Your task to perform on an android device: see creations saved in the google photos Image 0: 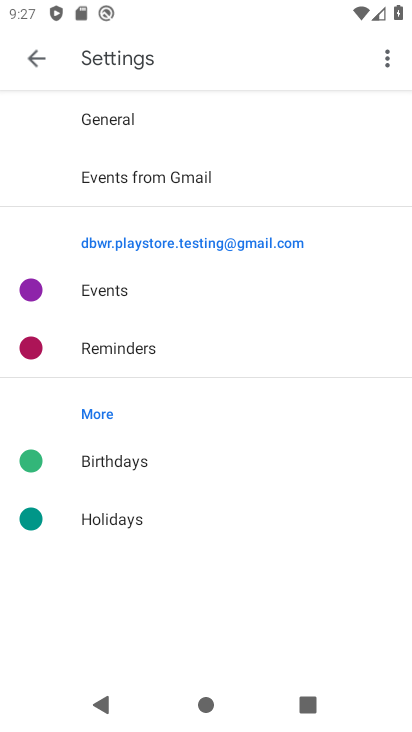
Step 0: press back button
Your task to perform on an android device: see creations saved in the google photos Image 1: 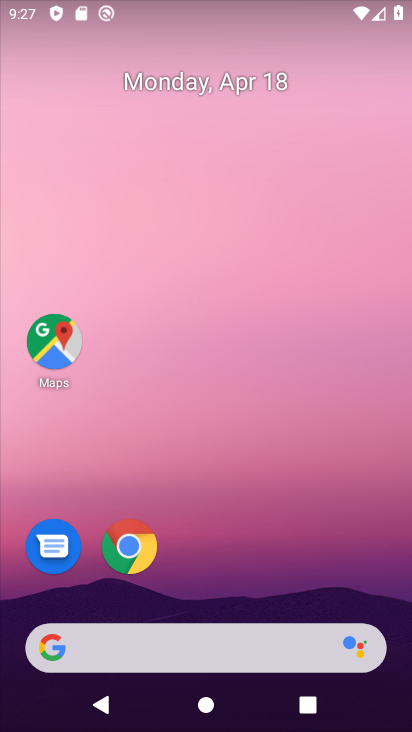
Step 1: drag from (211, 522) to (269, 222)
Your task to perform on an android device: see creations saved in the google photos Image 2: 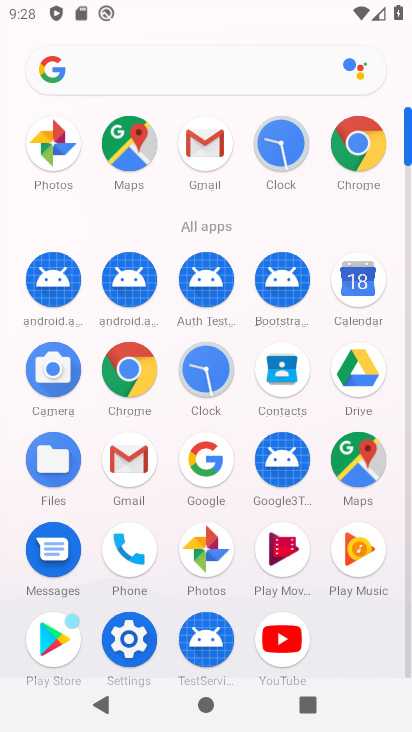
Step 2: click (217, 550)
Your task to perform on an android device: see creations saved in the google photos Image 3: 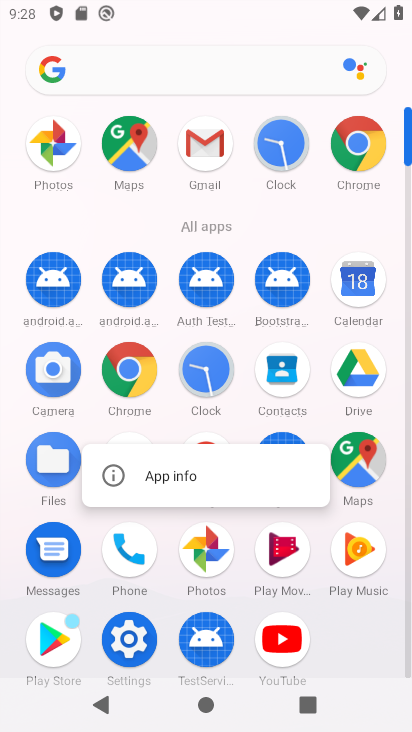
Step 3: click (209, 551)
Your task to perform on an android device: see creations saved in the google photos Image 4: 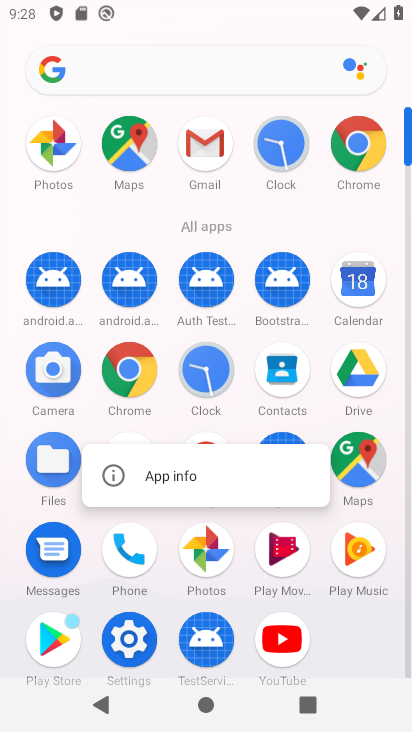
Step 4: click (203, 567)
Your task to perform on an android device: see creations saved in the google photos Image 5: 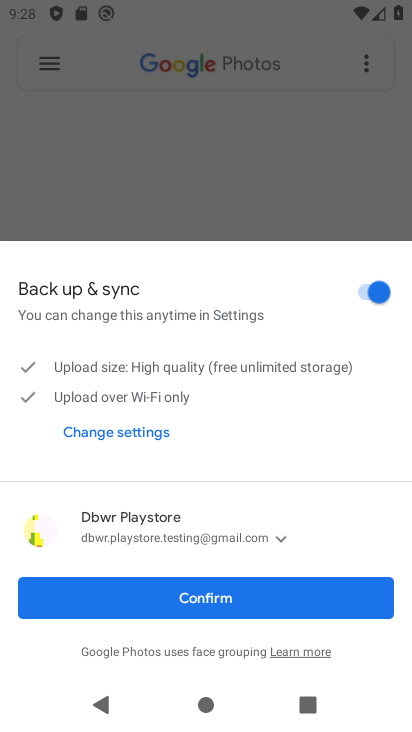
Step 5: click (211, 591)
Your task to perform on an android device: see creations saved in the google photos Image 6: 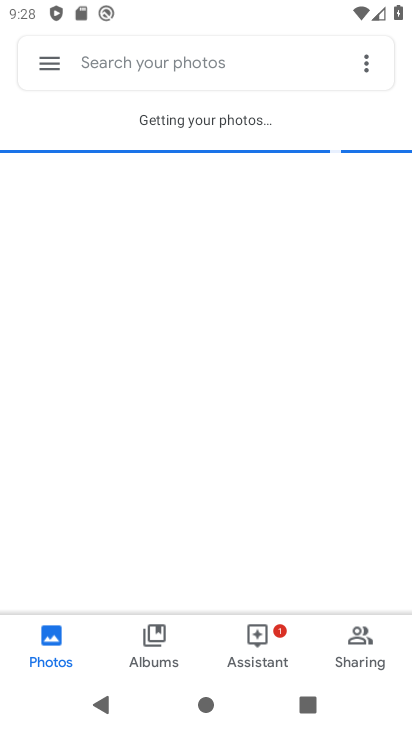
Step 6: click (132, 60)
Your task to perform on an android device: see creations saved in the google photos Image 7: 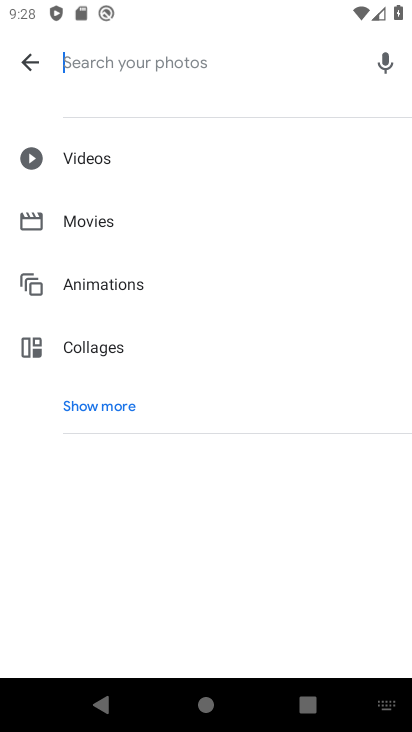
Step 7: type "creations"
Your task to perform on an android device: see creations saved in the google photos Image 8: 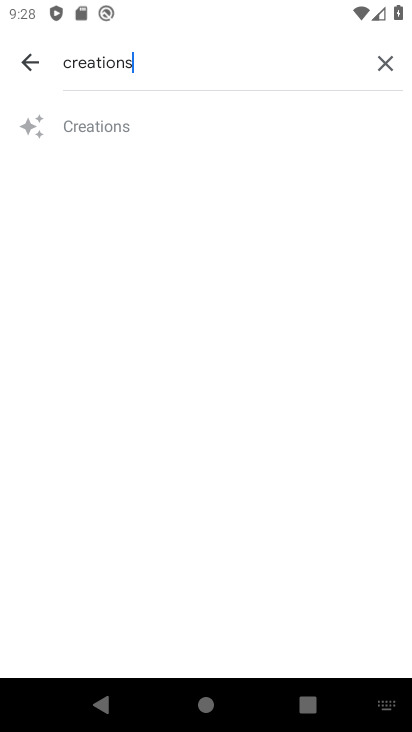
Step 8: click (172, 123)
Your task to perform on an android device: see creations saved in the google photos Image 9: 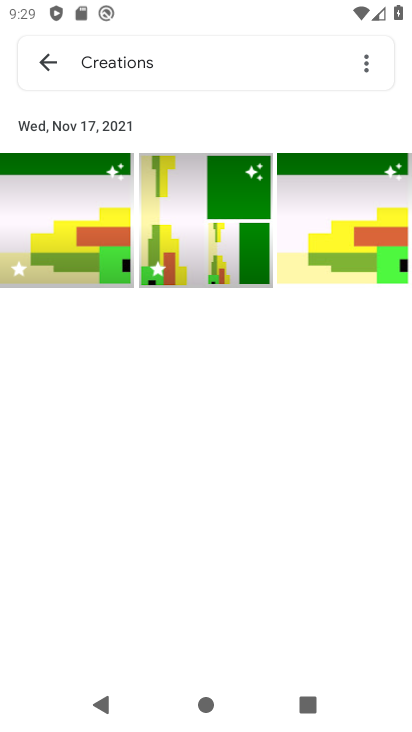
Step 9: task complete